Your task to perform on an android device: change your default location settings in chrome Image 0: 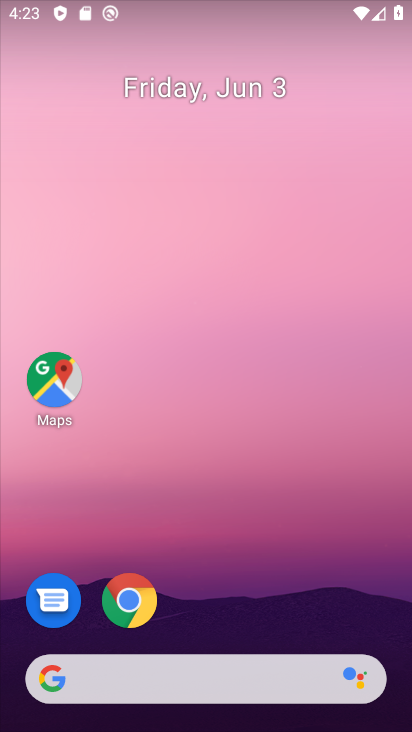
Step 0: click (236, 633)
Your task to perform on an android device: change your default location settings in chrome Image 1: 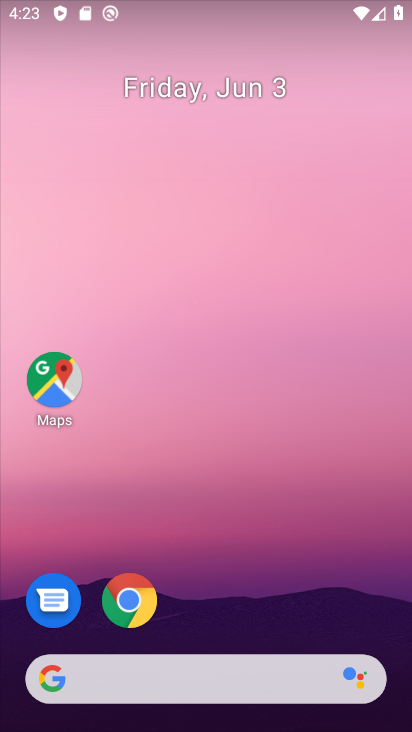
Step 1: click (103, 596)
Your task to perform on an android device: change your default location settings in chrome Image 2: 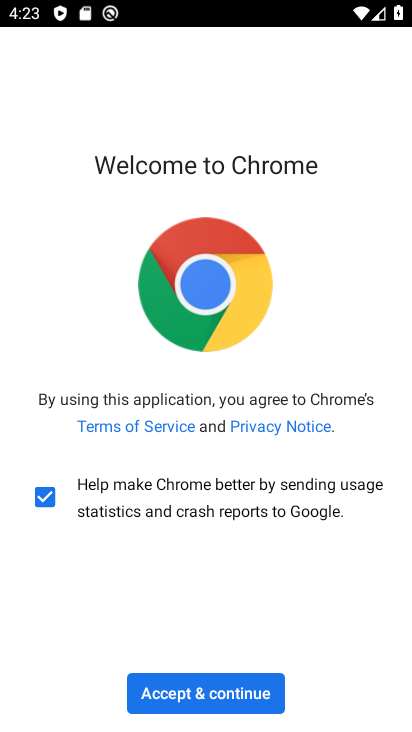
Step 2: click (214, 699)
Your task to perform on an android device: change your default location settings in chrome Image 3: 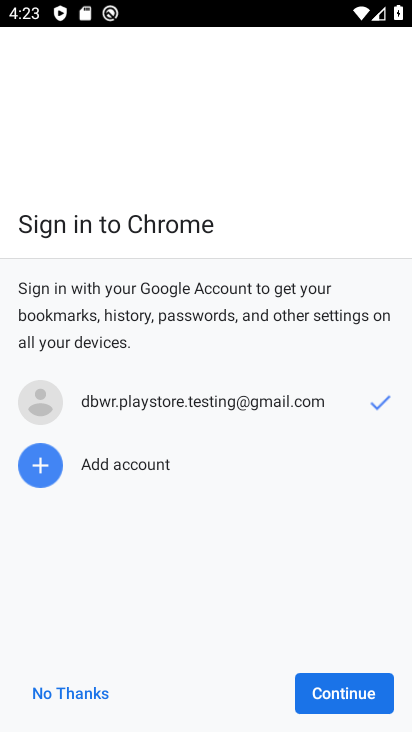
Step 3: click (365, 689)
Your task to perform on an android device: change your default location settings in chrome Image 4: 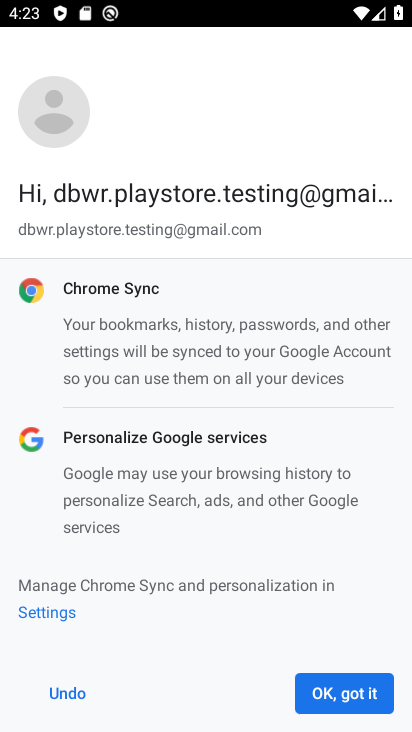
Step 4: click (364, 690)
Your task to perform on an android device: change your default location settings in chrome Image 5: 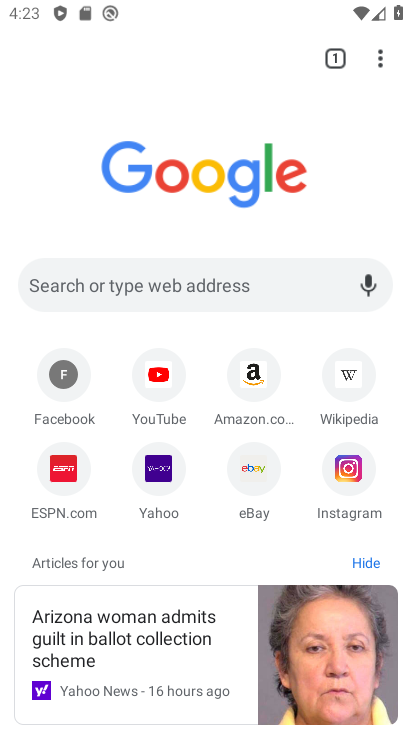
Step 5: click (381, 58)
Your task to perform on an android device: change your default location settings in chrome Image 6: 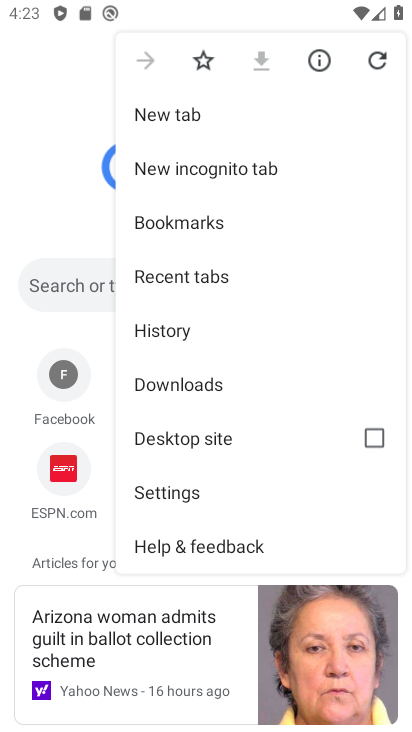
Step 6: click (154, 488)
Your task to perform on an android device: change your default location settings in chrome Image 7: 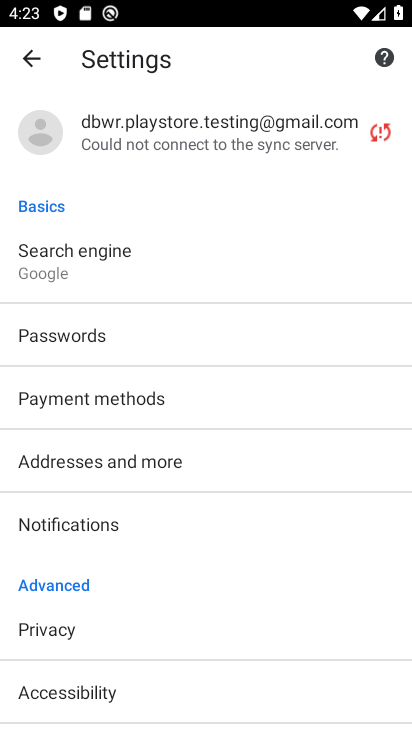
Step 7: drag from (100, 610) to (137, 325)
Your task to perform on an android device: change your default location settings in chrome Image 8: 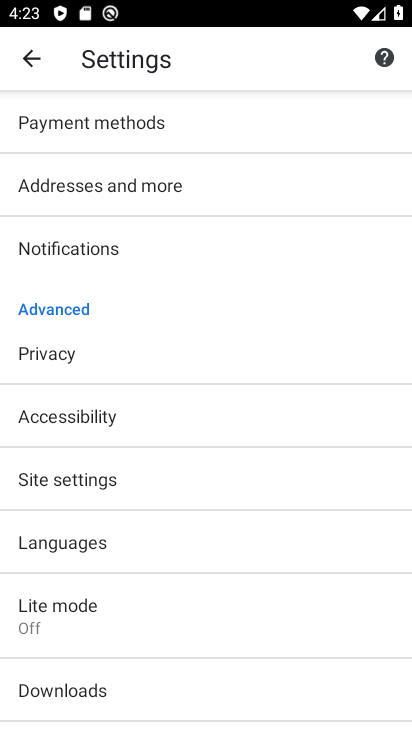
Step 8: click (91, 484)
Your task to perform on an android device: change your default location settings in chrome Image 9: 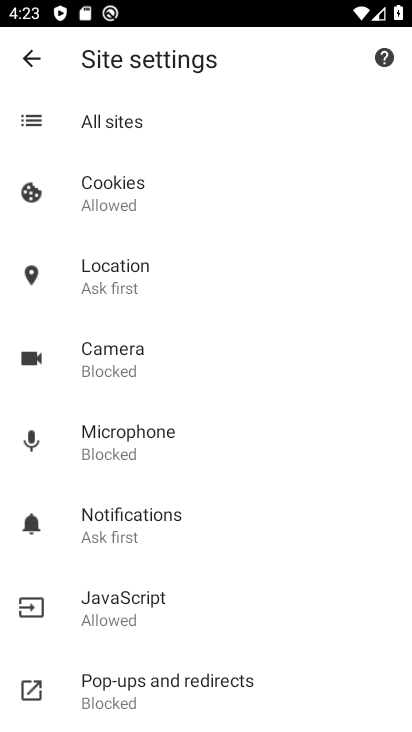
Step 9: click (125, 284)
Your task to perform on an android device: change your default location settings in chrome Image 10: 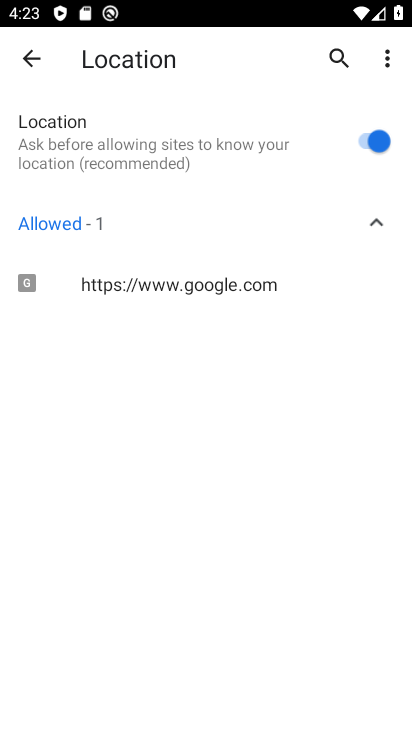
Step 10: click (360, 140)
Your task to perform on an android device: change your default location settings in chrome Image 11: 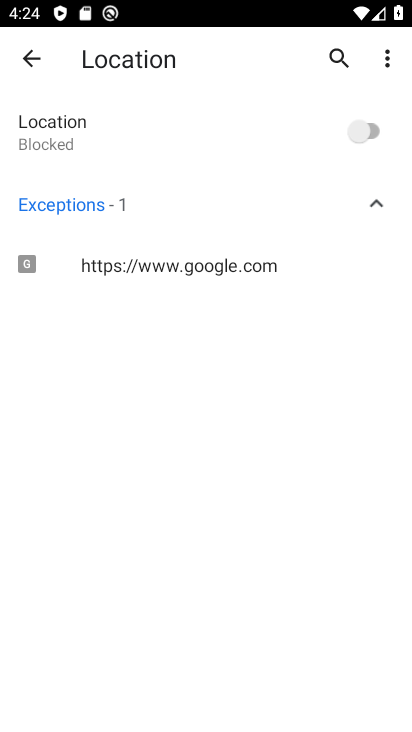
Step 11: task complete